Your task to perform on an android device: Search for dell alienware on target.com, select the first entry, add it to the cart, then select checkout. Image 0: 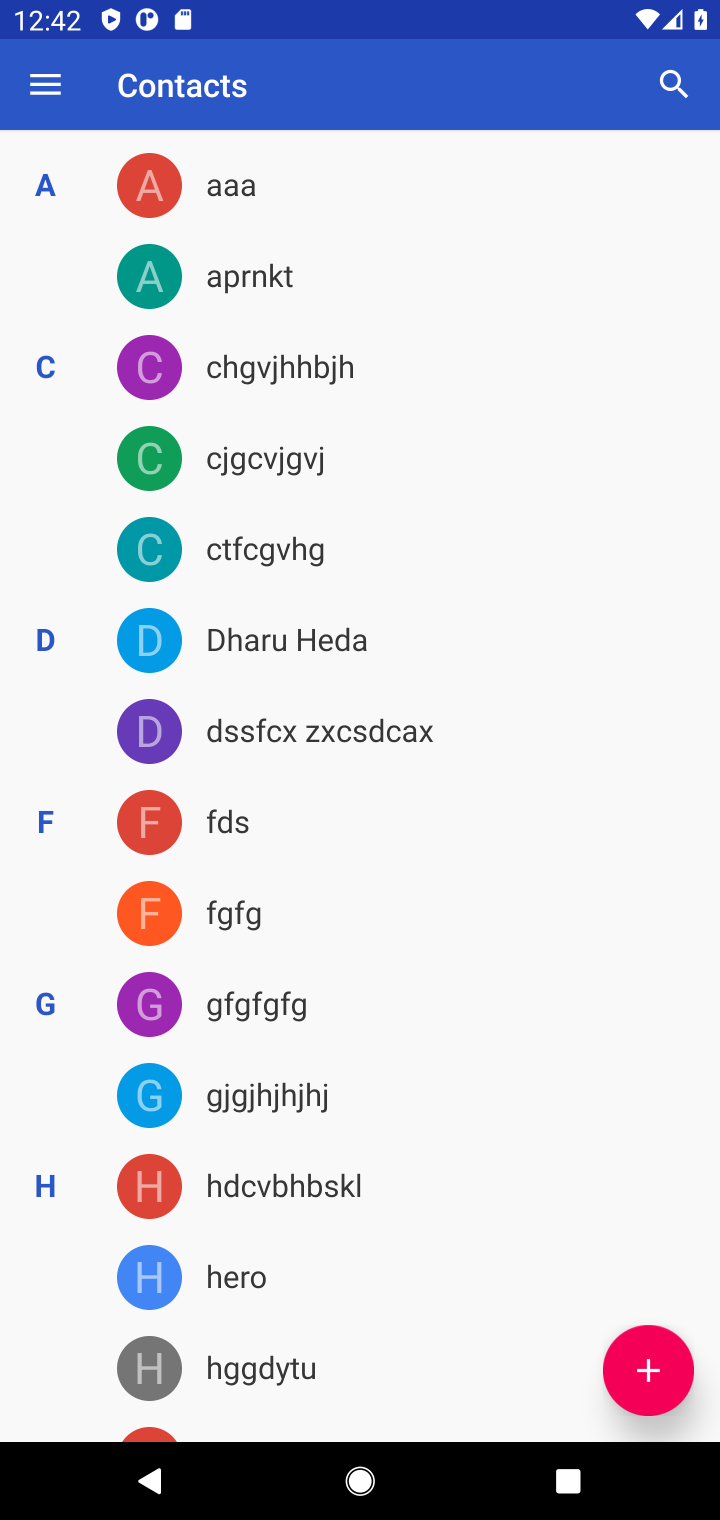
Step 0: press home button
Your task to perform on an android device: Search for dell alienware on target.com, select the first entry, add it to the cart, then select checkout. Image 1: 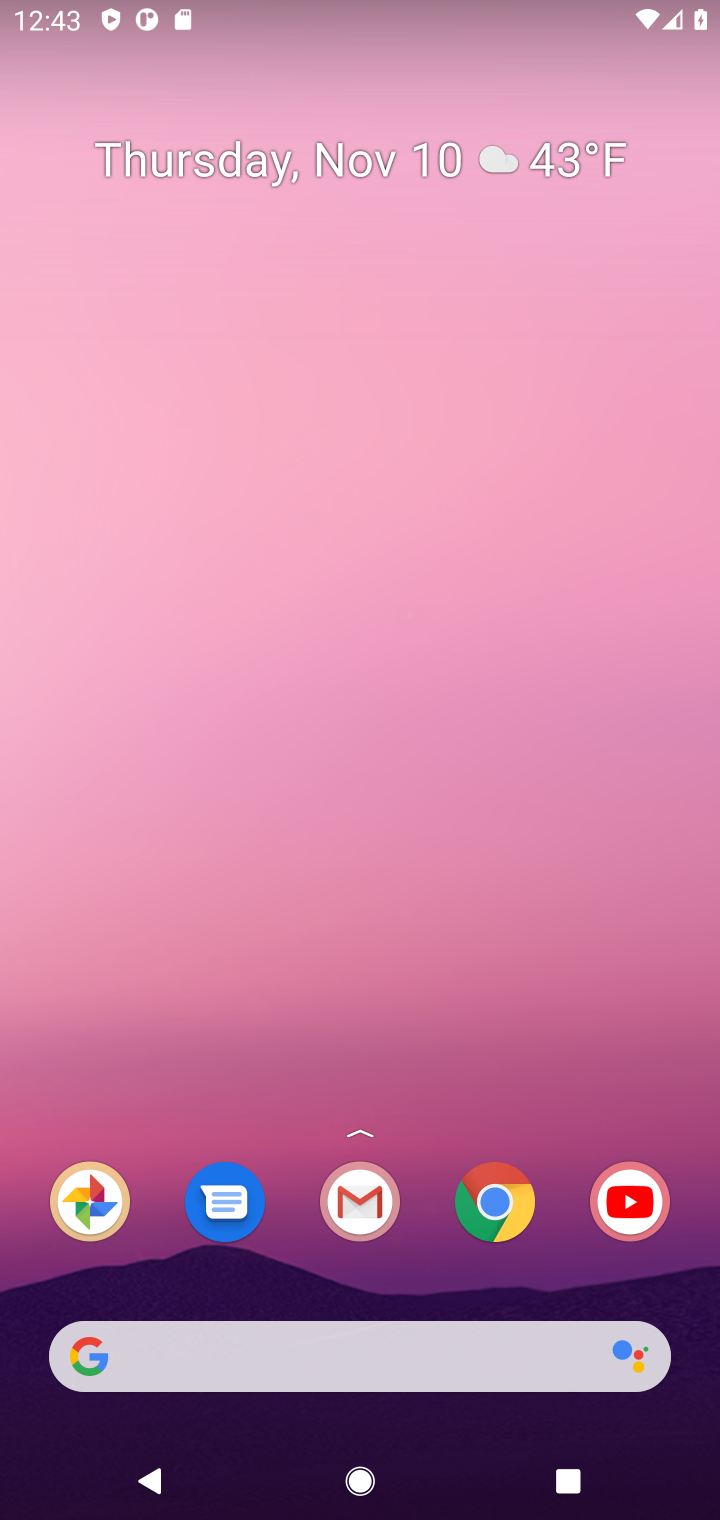
Step 1: click (482, 1196)
Your task to perform on an android device: Search for dell alienware on target.com, select the first entry, add it to the cart, then select checkout. Image 2: 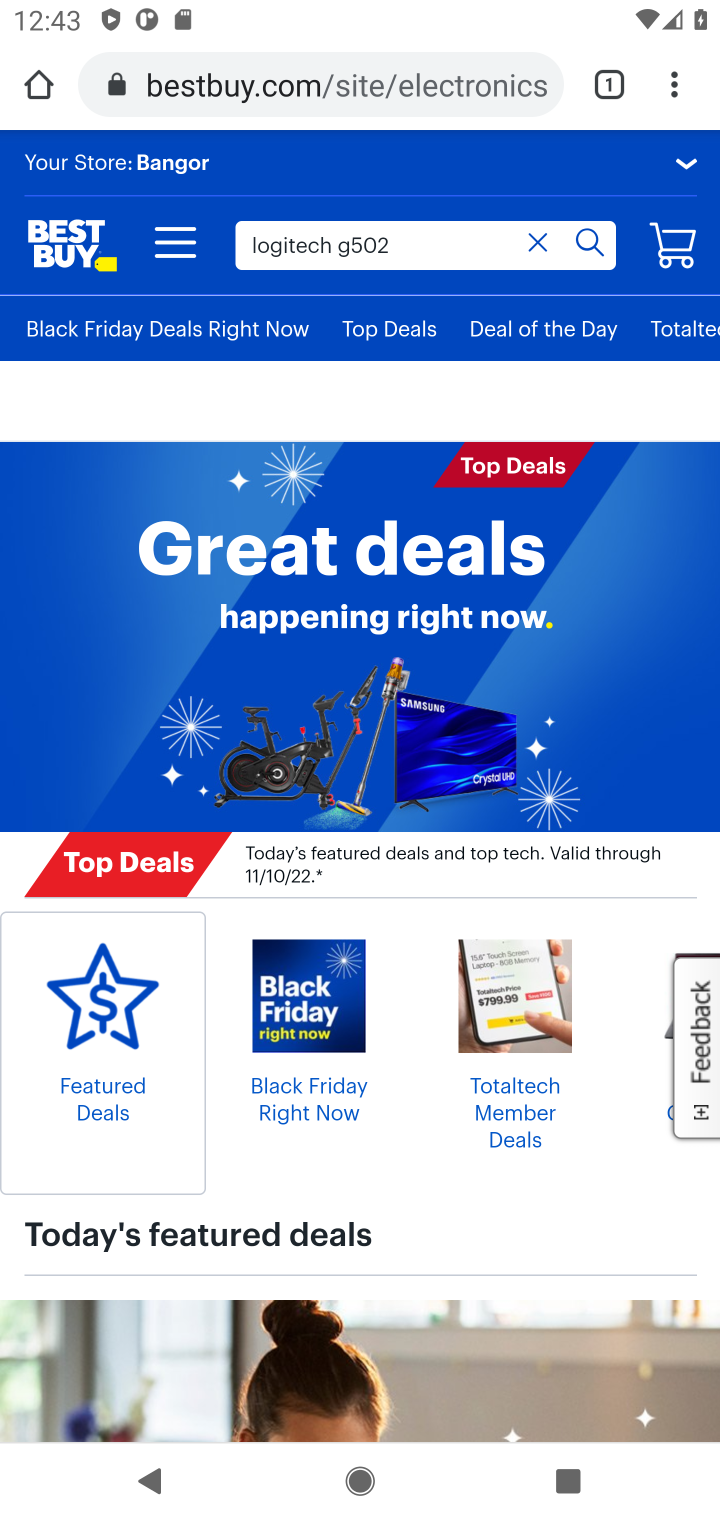
Step 2: click (348, 73)
Your task to perform on an android device: Search for dell alienware on target.com, select the first entry, add it to the cart, then select checkout. Image 3: 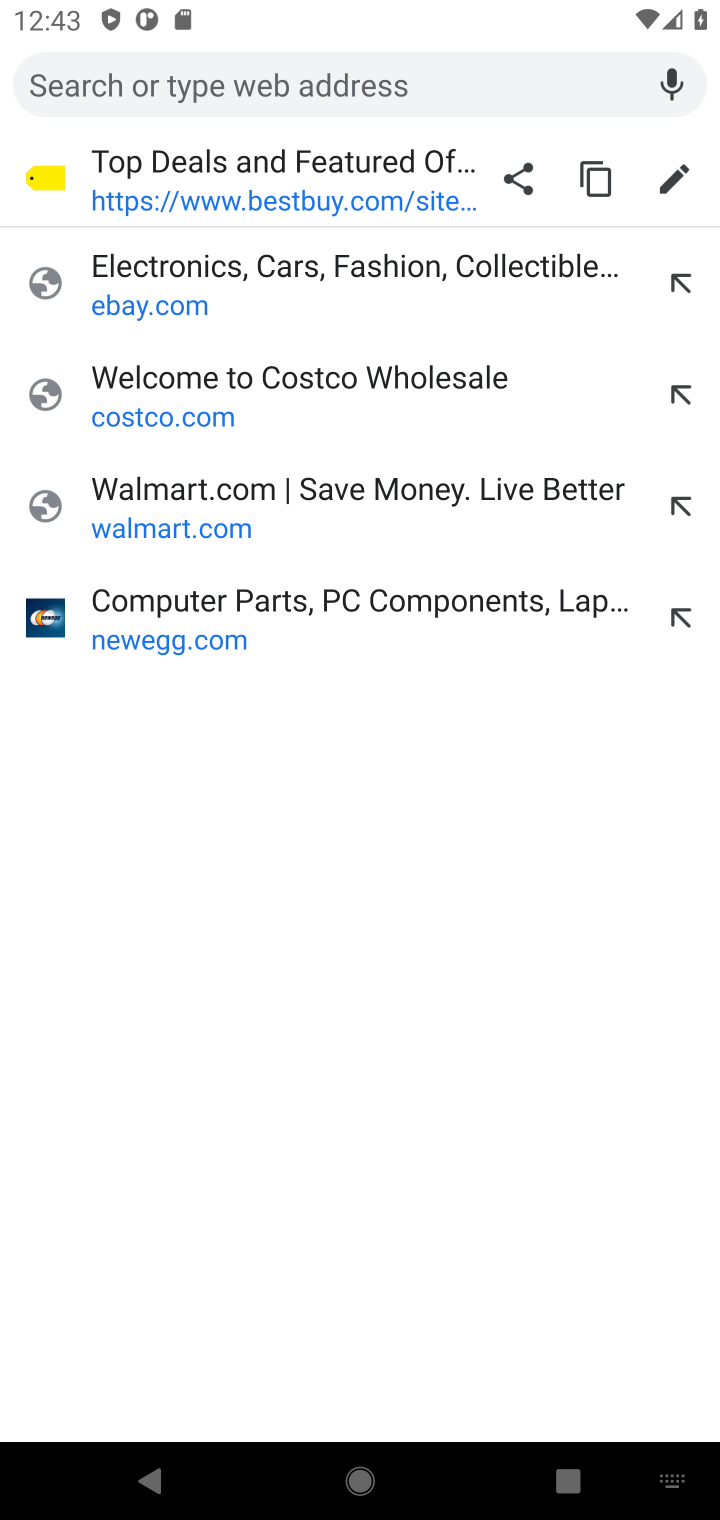
Step 3: type "target.com"
Your task to perform on an android device: Search for dell alienware on target.com, select the first entry, add it to the cart, then select checkout. Image 4: 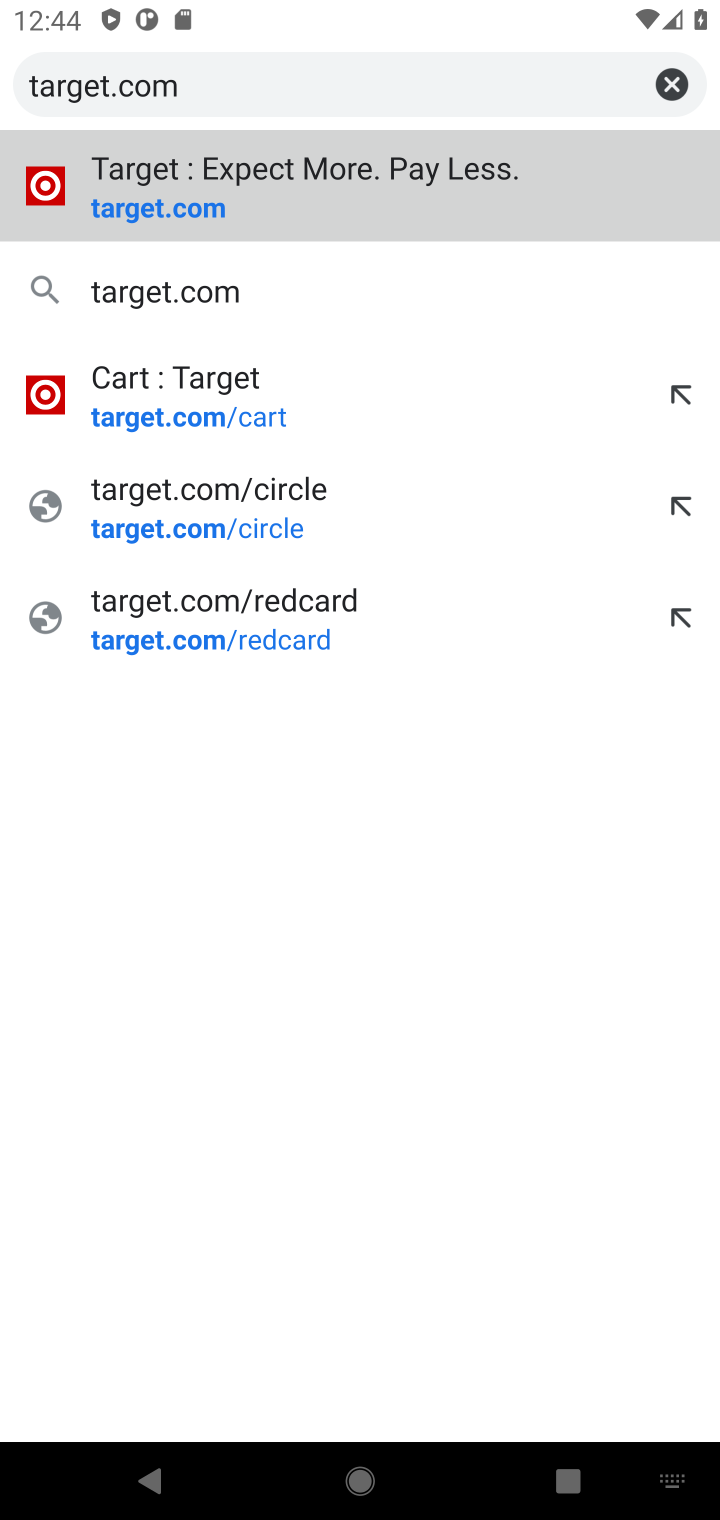
Step 4: click (231, 291)
Your task to perform on an android device: Search for dell alienware on target.com, select the first entry, add it to the cart, then select checkout. Image 5: 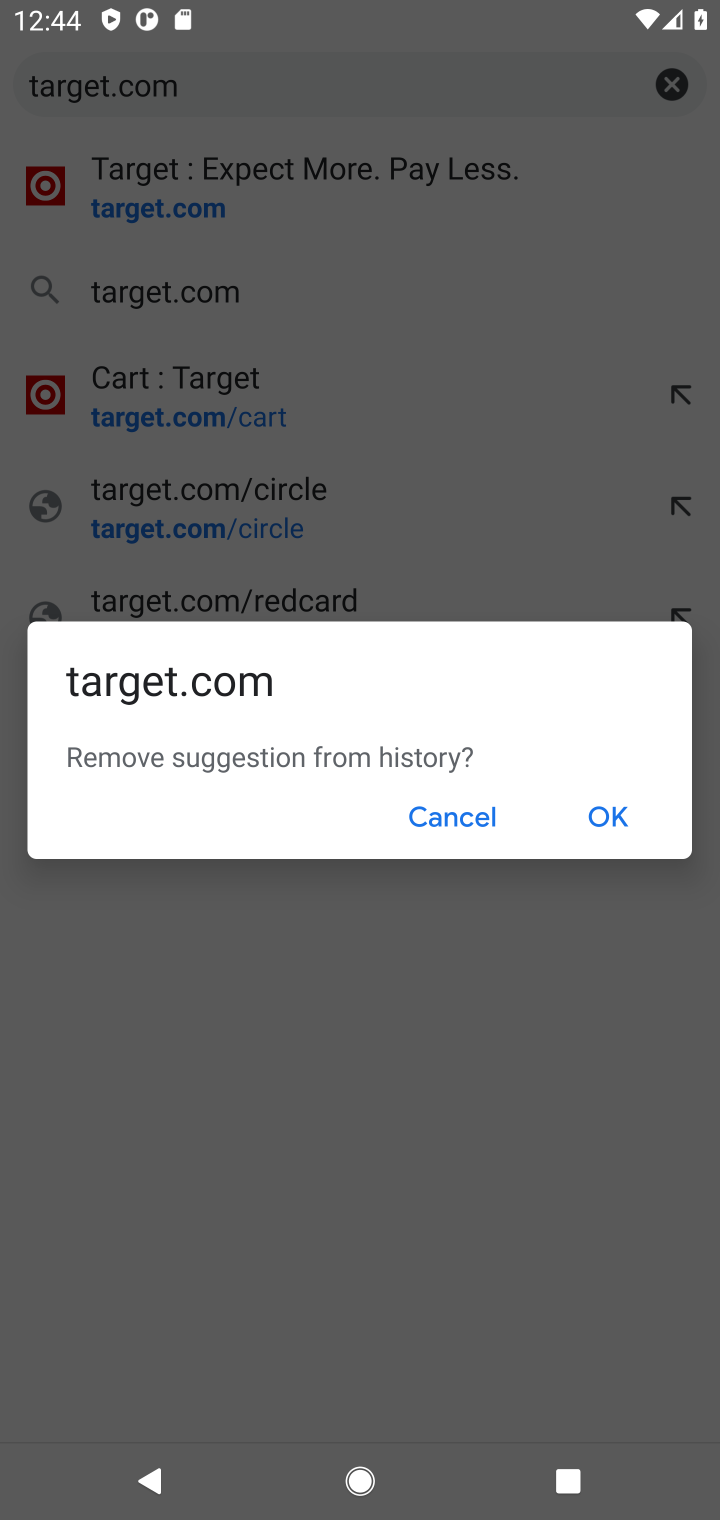
Step 5: click (614, 806)
Your task to perform on an android device: Search for dell alienware on target.com, select the first entry, add it to the cart, then select checkout. Image 6: 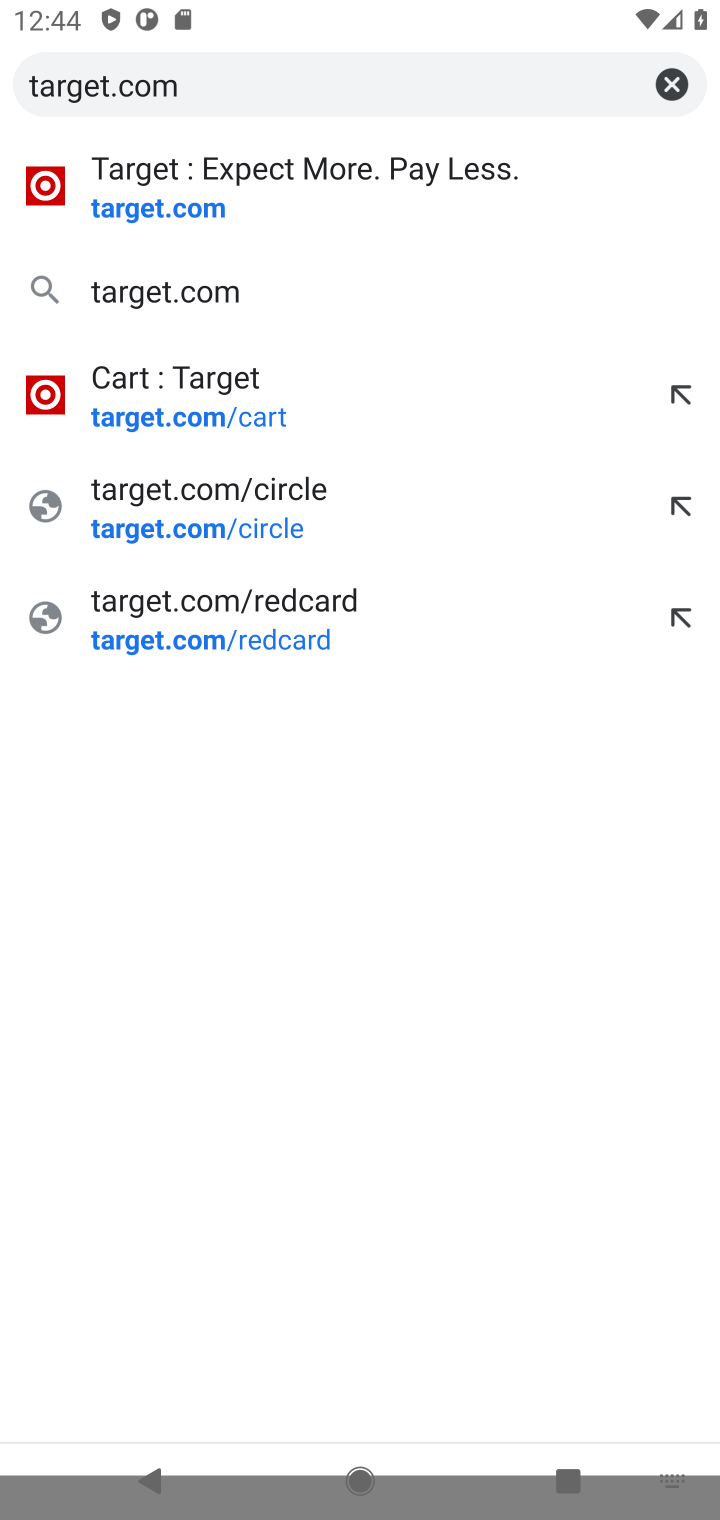
Step 6: click (316, 88)
Your task to perform on an android device: Search for dell alienware on target.com, select the first entry, add it to the cart, then select checkout. Image 7: 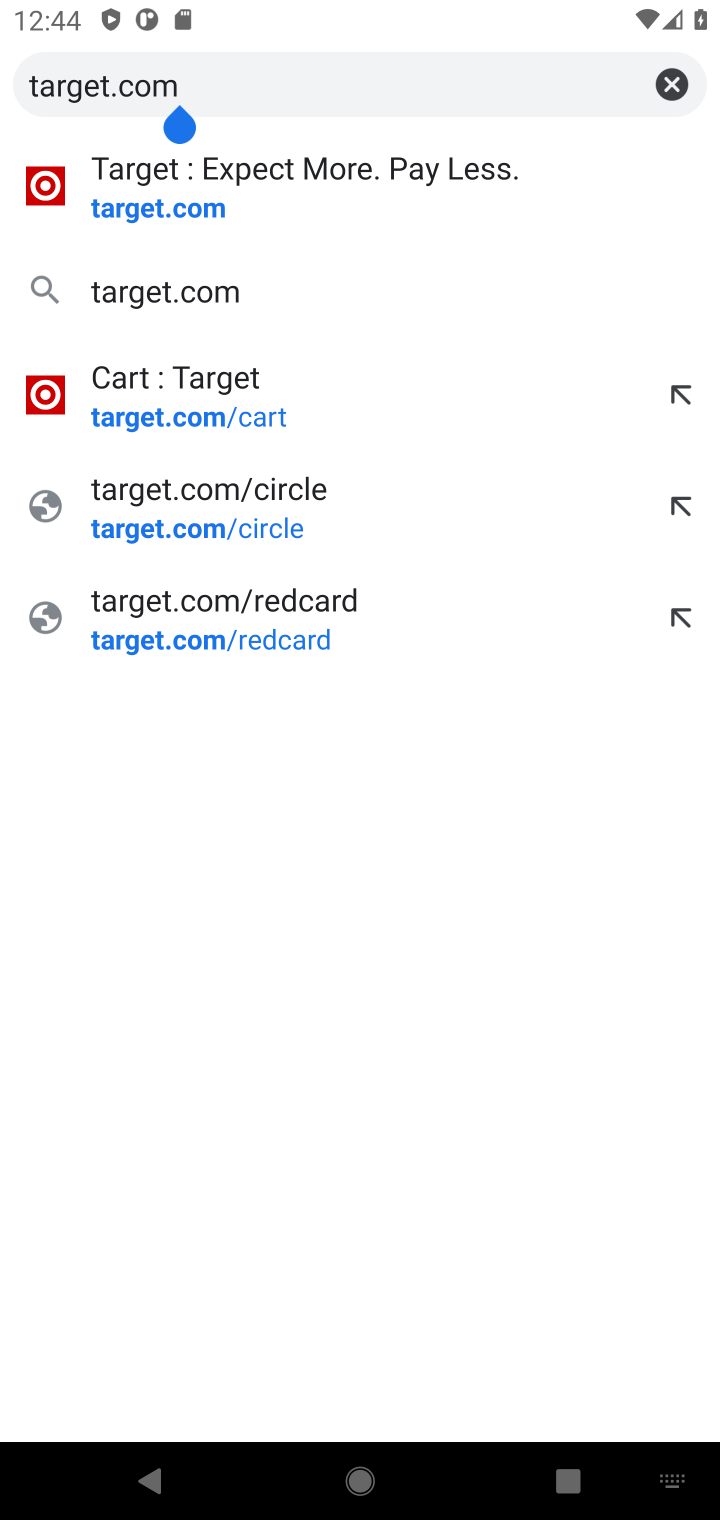
Step 7: click (195, 294)
Your task to perform on an android device: Search for dell alienware on target.com, select the first entry, add it to the cart, then select checkout. Image 8: 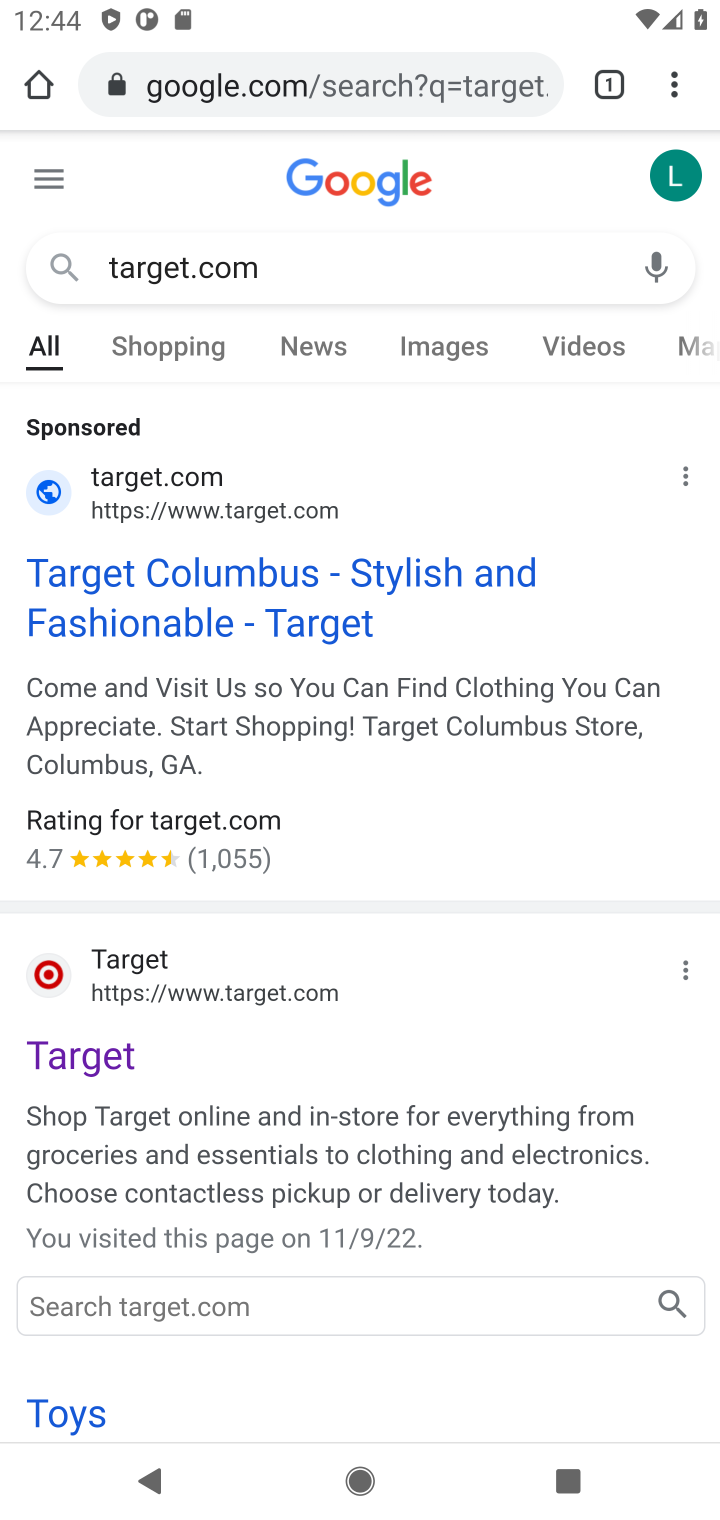
Step 8: click (281, 501)
Your task to perform on an android device: Search for dell alienware on target.com, select the first entry, add it to the cart, then select checkout. Image 9: 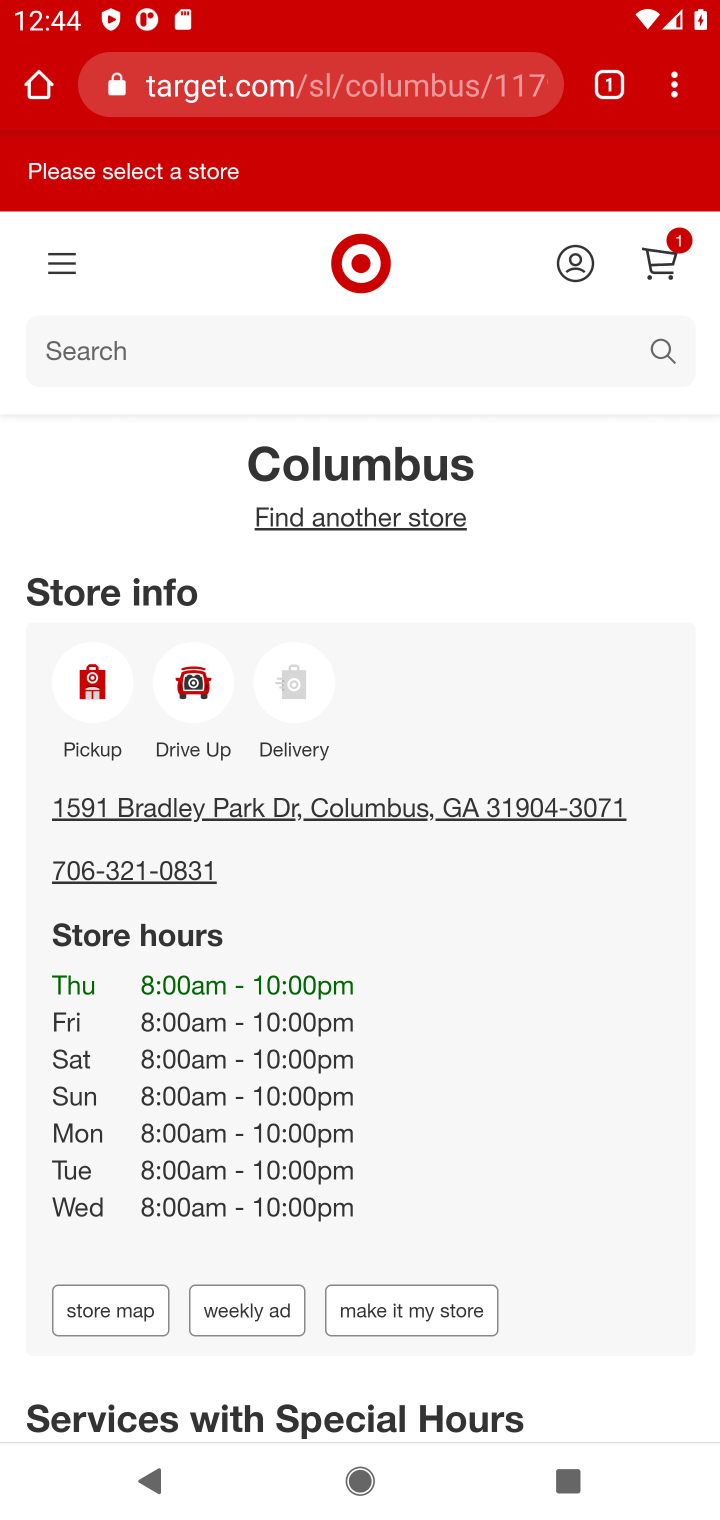
Step 9: click (671, 350)
Your task to perform on an android device: Search for dell alienware on target.com, select the first entry, add it to the cart, then select checkout. Image 10: 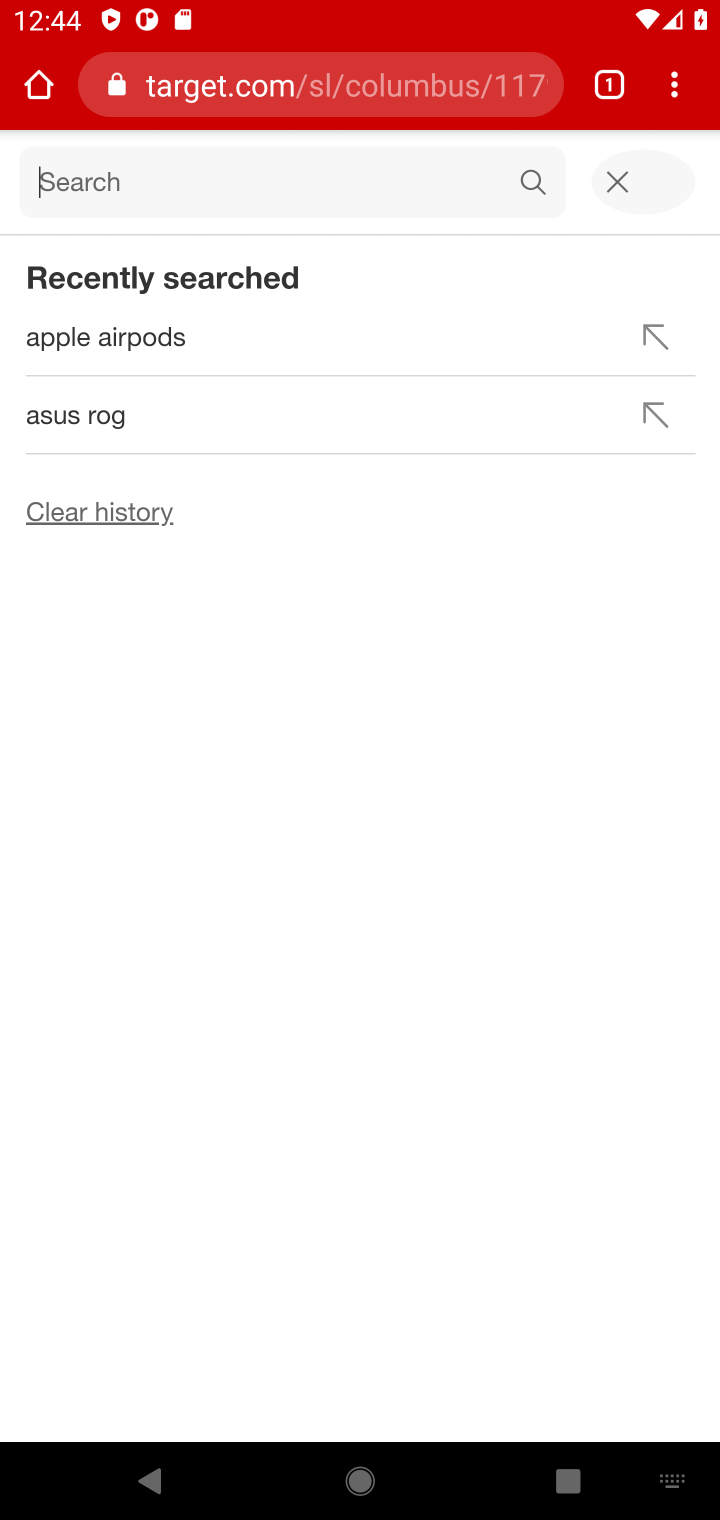
Step 10: type "dell alienware "
Your task to perform on an android device: Search for dell alienware on target.com, select the first entry, add it to the cart, then select checkout. Image 11: 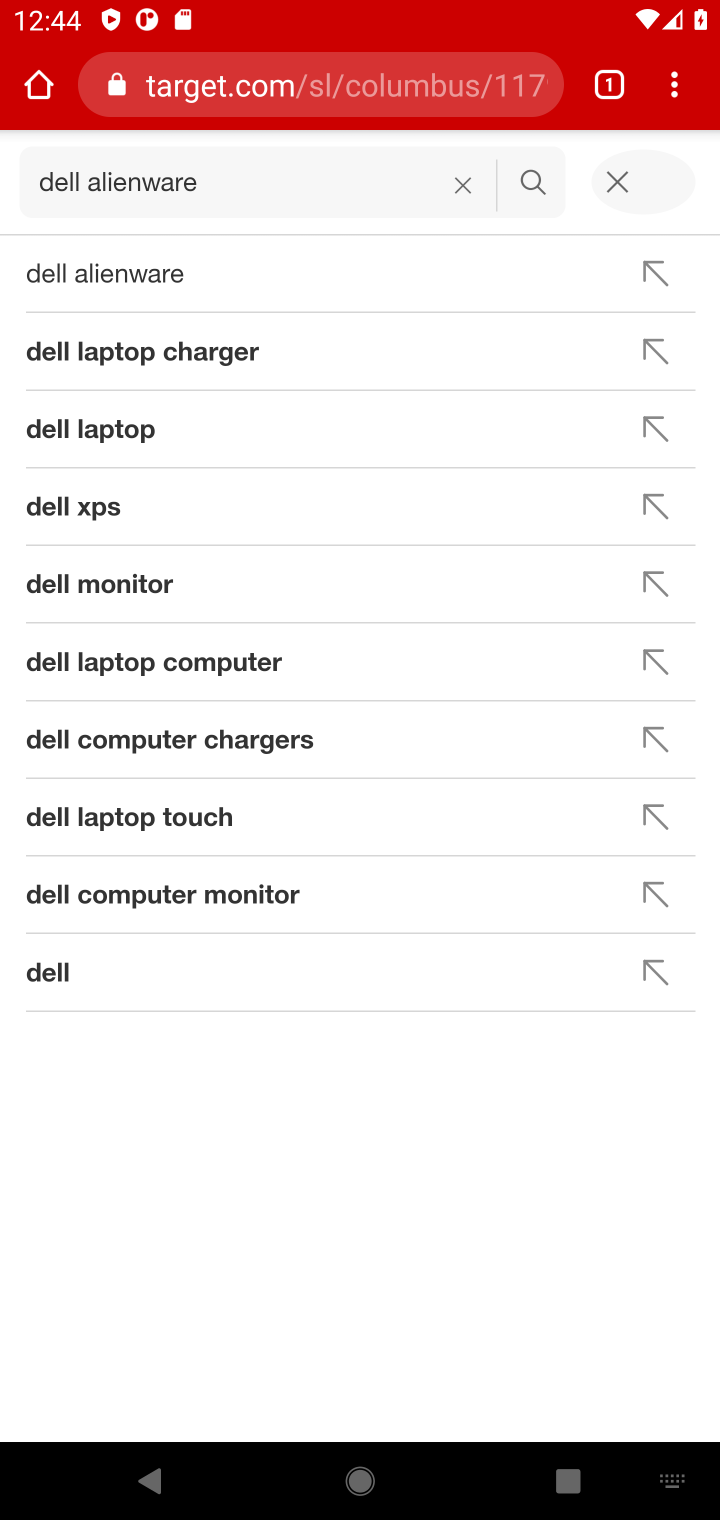
Step 11: click (100, 264)
Your task to perform on an android device: Search for dell alienware on target.com, select the first entry, add it to the cart, then select checkout. Image 12: 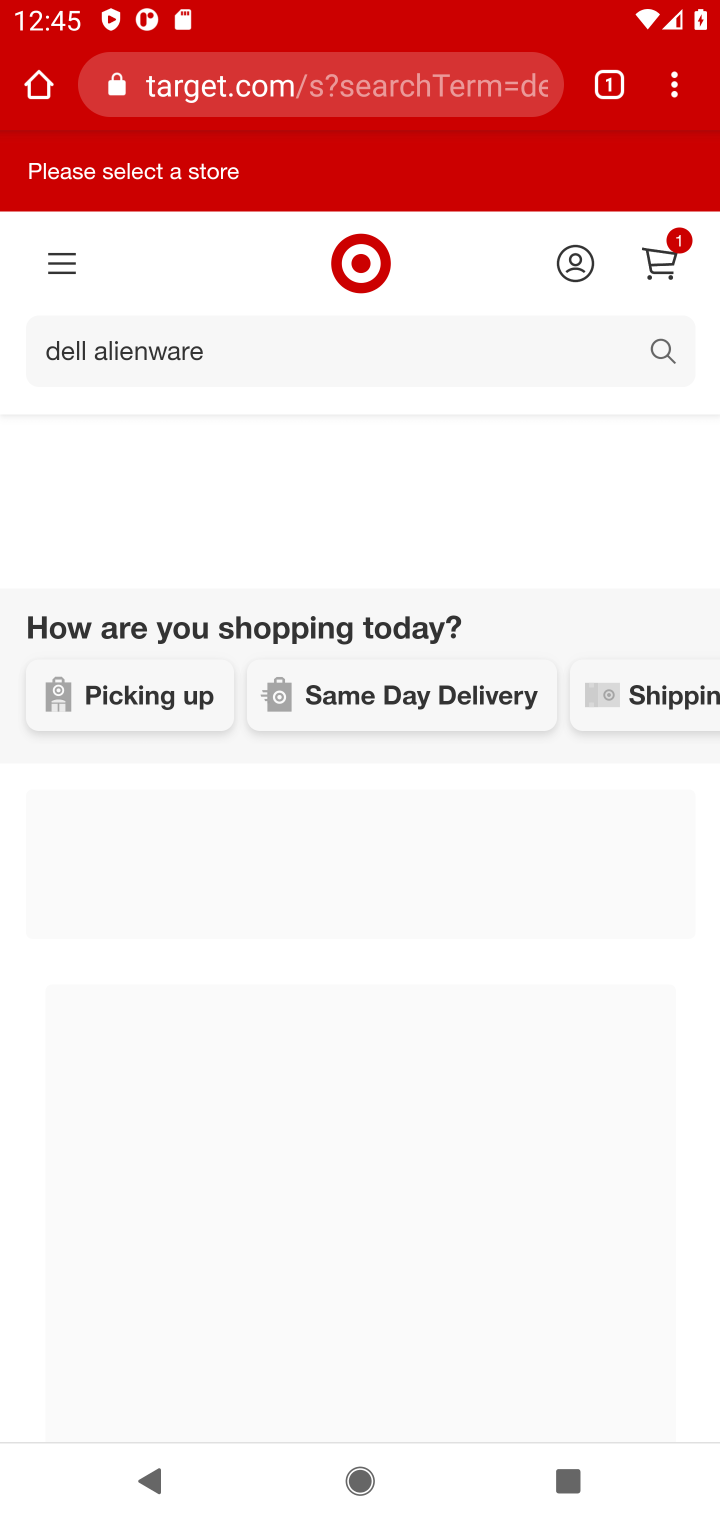
Step 12: task complete